Your task to perform on an android device: open device folders in google photos Image 0: 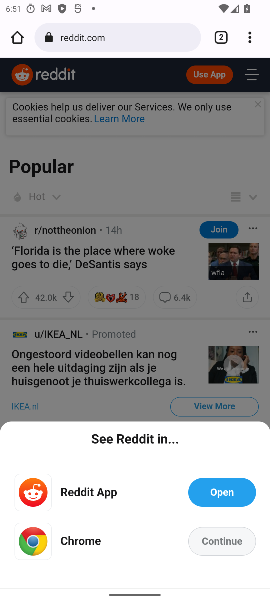
Step 0: press home button
Your task to perform on an android device: open device folders in google photos Image 1: 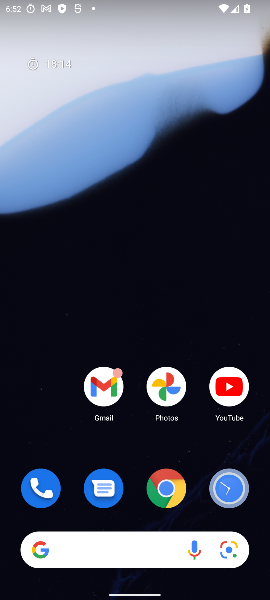
Step 1: drag from (54, 395) to (12, 60)
Your task to perform on an android device: open device folders in google photos Image 2: 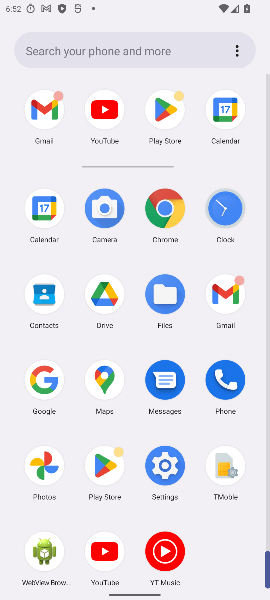
Step 2: click (47, 473)
Your task to perform on an android device: open device folders in google photos Image 3: 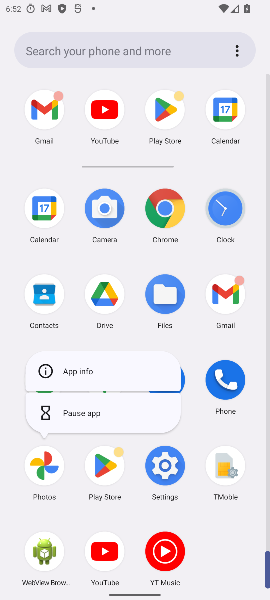
Step 3: click (43, 473)
Your task to perform on an android device: open device folders in google photos Image 4: 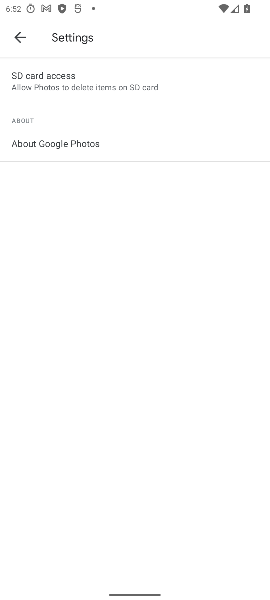
Step 4: click (20, 37)
Your task to perform on an android device: open device folders in google photos Image 5: 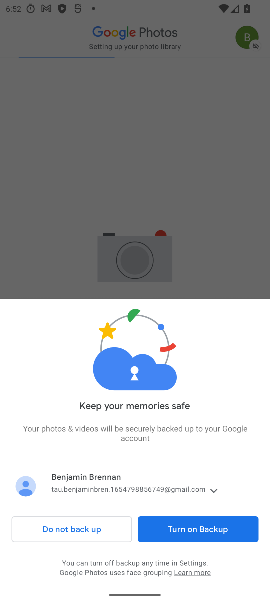
Step 5: click (212, 527)
Your task to perform on an android device: open device folders in google photos Image 6: 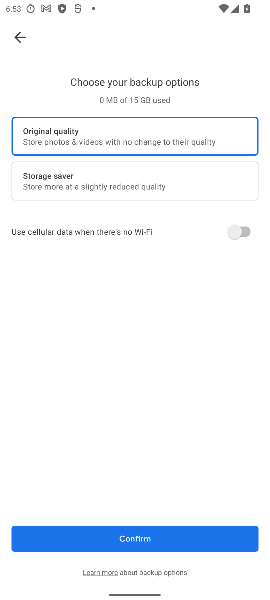
Step 6: click (145, 537)
Your task to perform on an android device: open device folders in google photos Image 7: 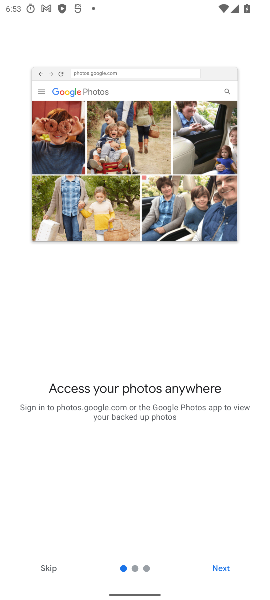
Step 7: click (214, 570)
Your task to perform on an android device: open device folders in google photos Image 8: 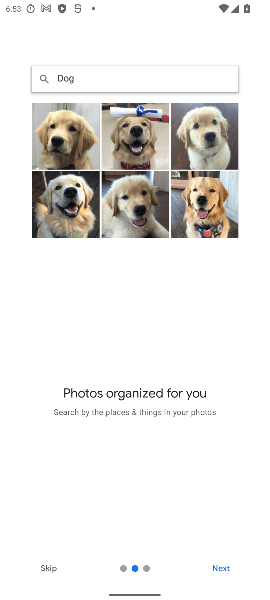
Step 8: click (214, 568)
Your task to perform on an android device: open device folders in google photos Image 9: 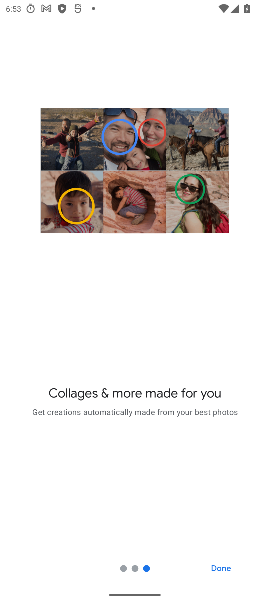
Step 9: click (214, 568)
Your task to perform on an android device: open device folders in google photos Image 10: 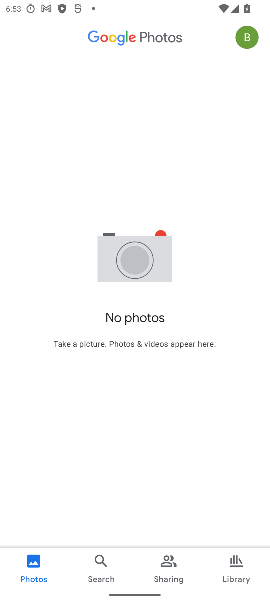
Step 10: task complete